Your task to perform on an android device: toggle airplane mode Image 0: 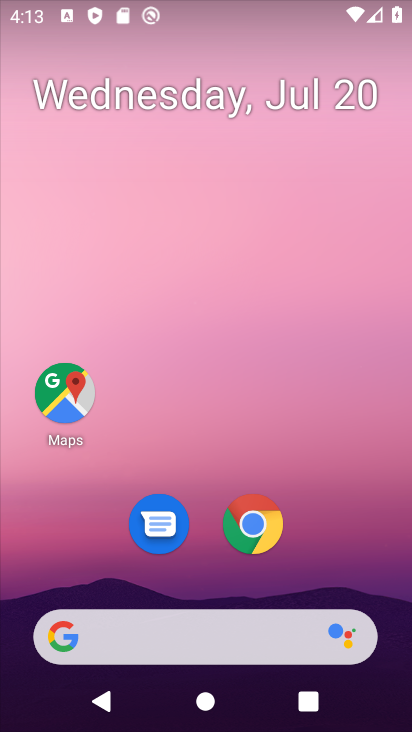
Step 0: drag from (313, 536) to (316, 33)
Your task to perform on an android device: toggle airplane mode Image 1: 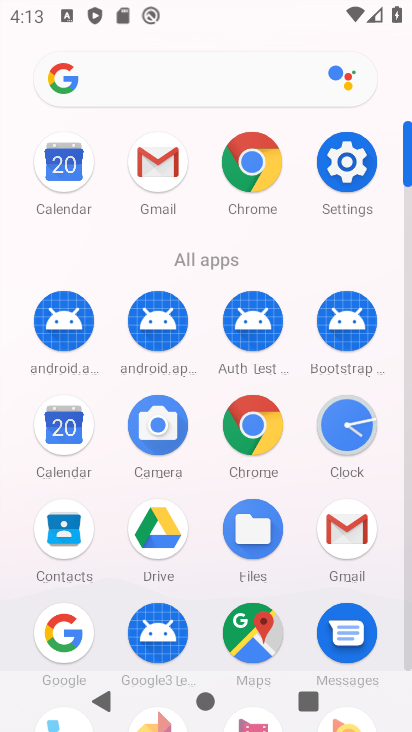
Step 1: click (346, 160)
Your task to perform on an android device: toggle airplane mode Image 2: 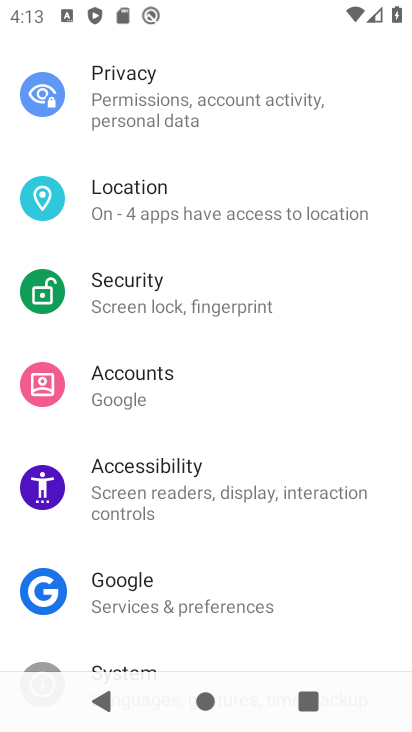
Step 2: drag from (232, 171) to (247, 577)
Your task to perform on an android device: toggle airplane mode Image 3: 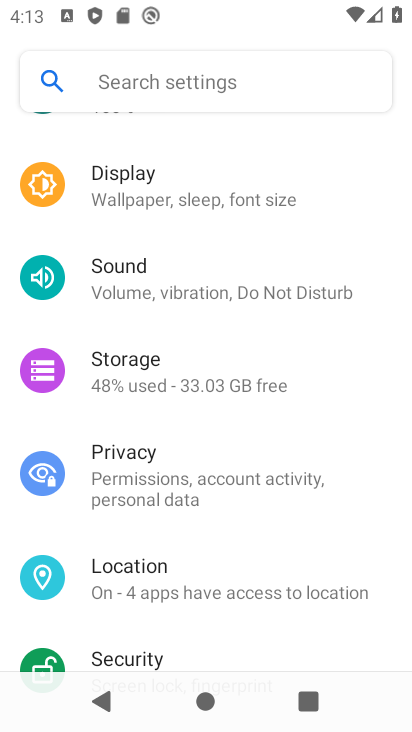
Step 3: drag from (233, 148) to (216, 536)
Your task to perform on an android device: toggle airplane mode Image 4: 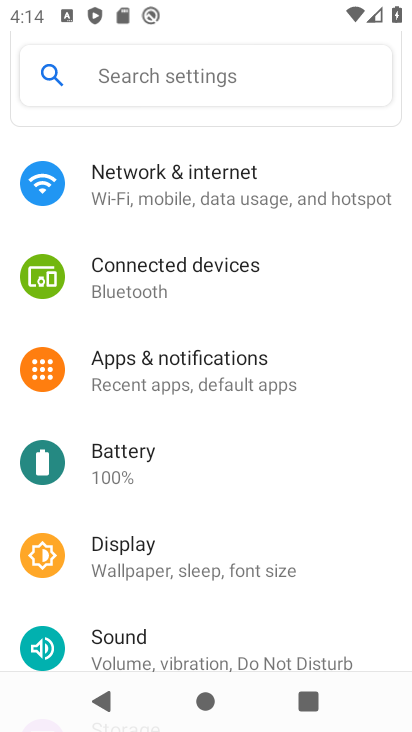
Step 4: click (264, 189)
Your task to perform on an android device: toggle airplane mode Image 5: 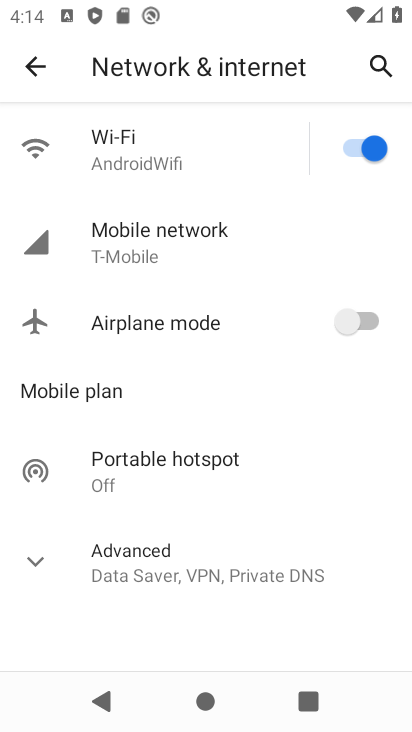
Step 5: click (350, 316)
Your task to perform on an android device: toggle airplane mode Image 6: 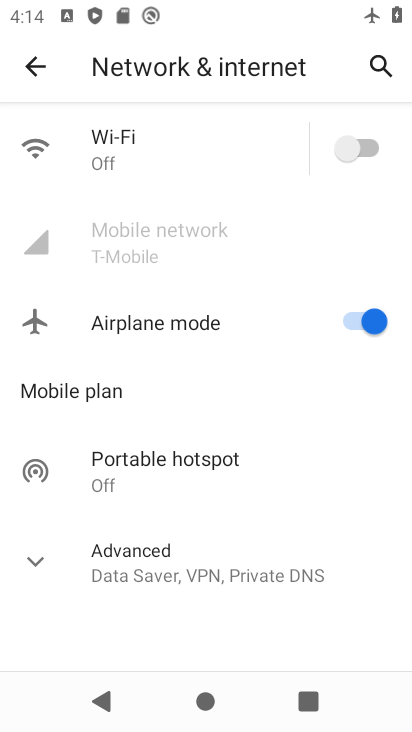
Step 6: task complete